Your task to perform on an android device: Clear the cart on amazon.com. Add macbook pro 15 inch to the cart on amazon.com Image 0: 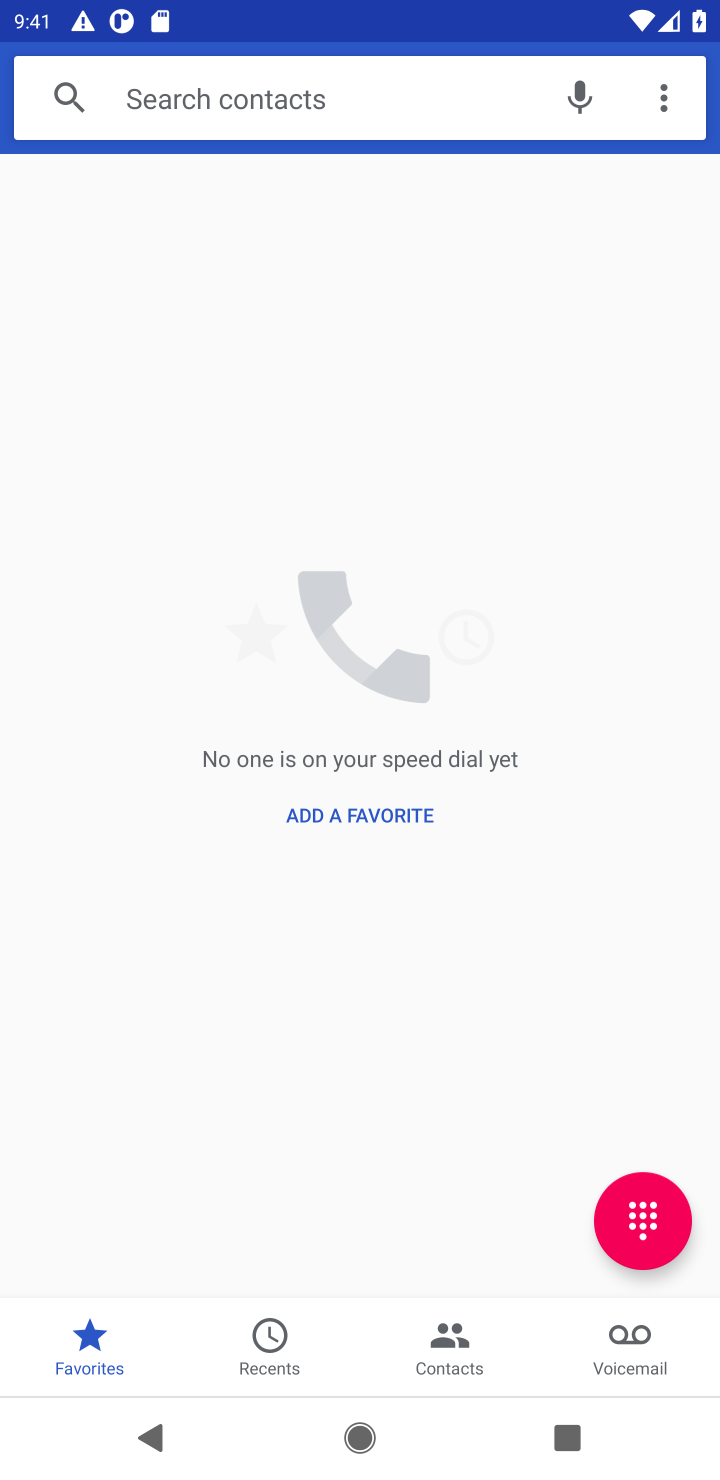
Step 0: press home button
Your task to perform on an android device: Clear the cart on amazon.com. Add macbook pro 15 inch to the cart on amazon.com Image 1: 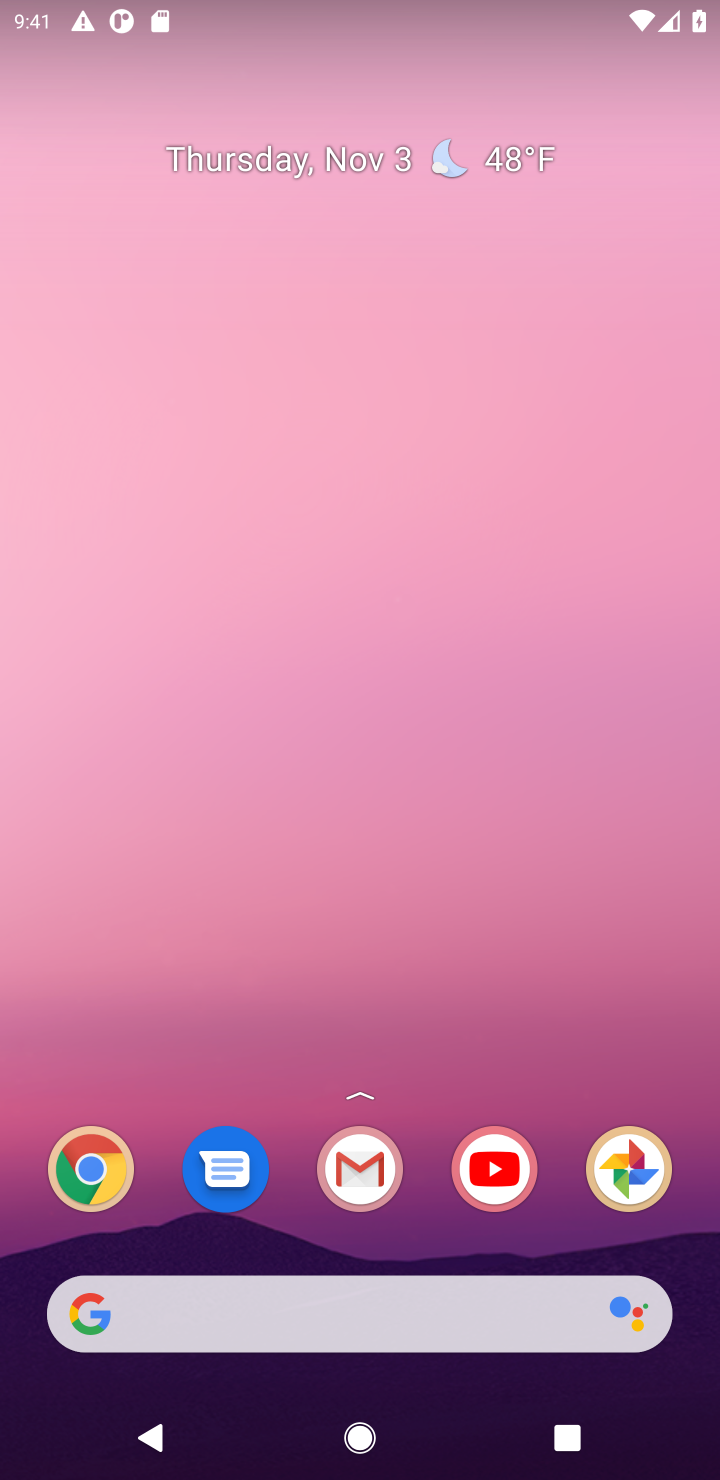
Step 1: drag from (430, 995) to (403, 205)
Your task to perform on an android device: Clear the cart on amazon.com. Add macbook pro 15 inch to the cart on amazon.com Image 2: 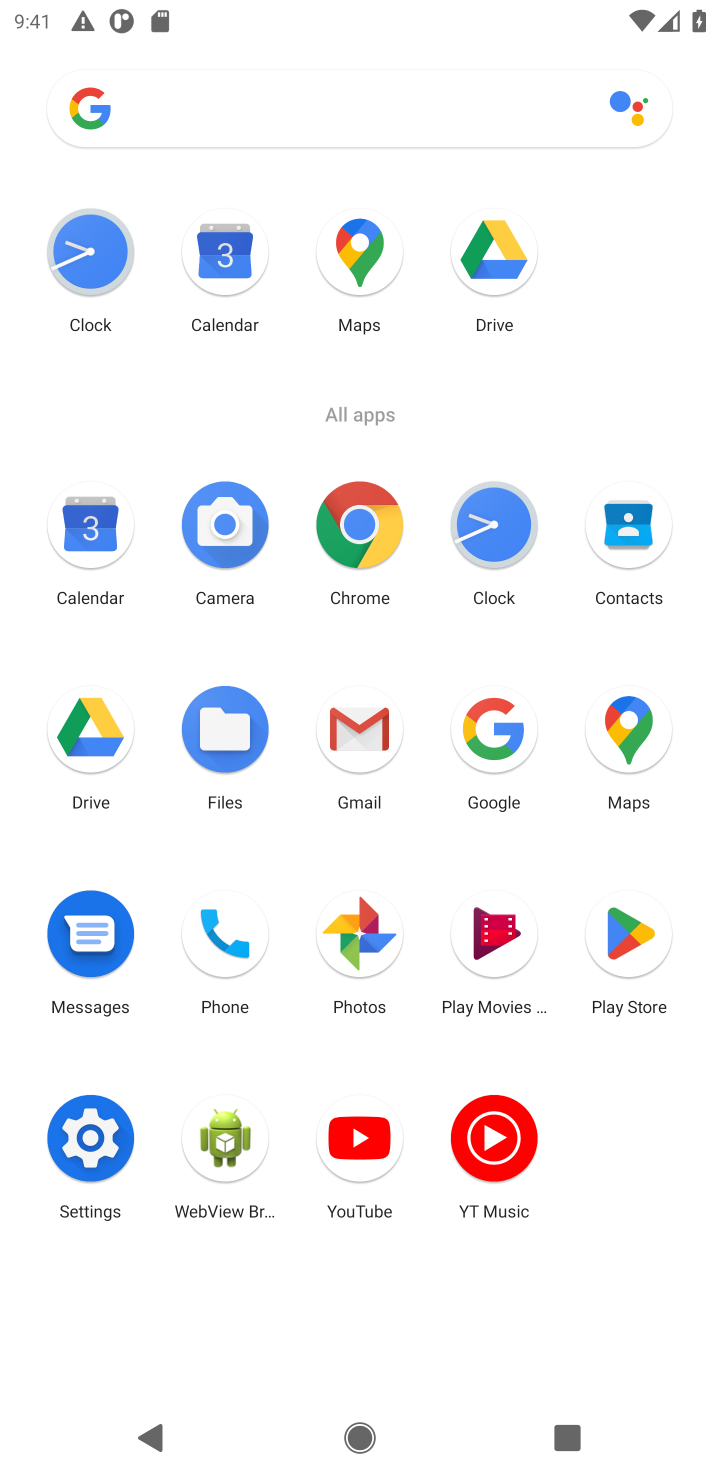
Step 2: click (365, 534)
Your task to perform on an android device: Clear the cart on amazon.com. Add macbook pro 15 inch to the cart on amazon.com Image 3: 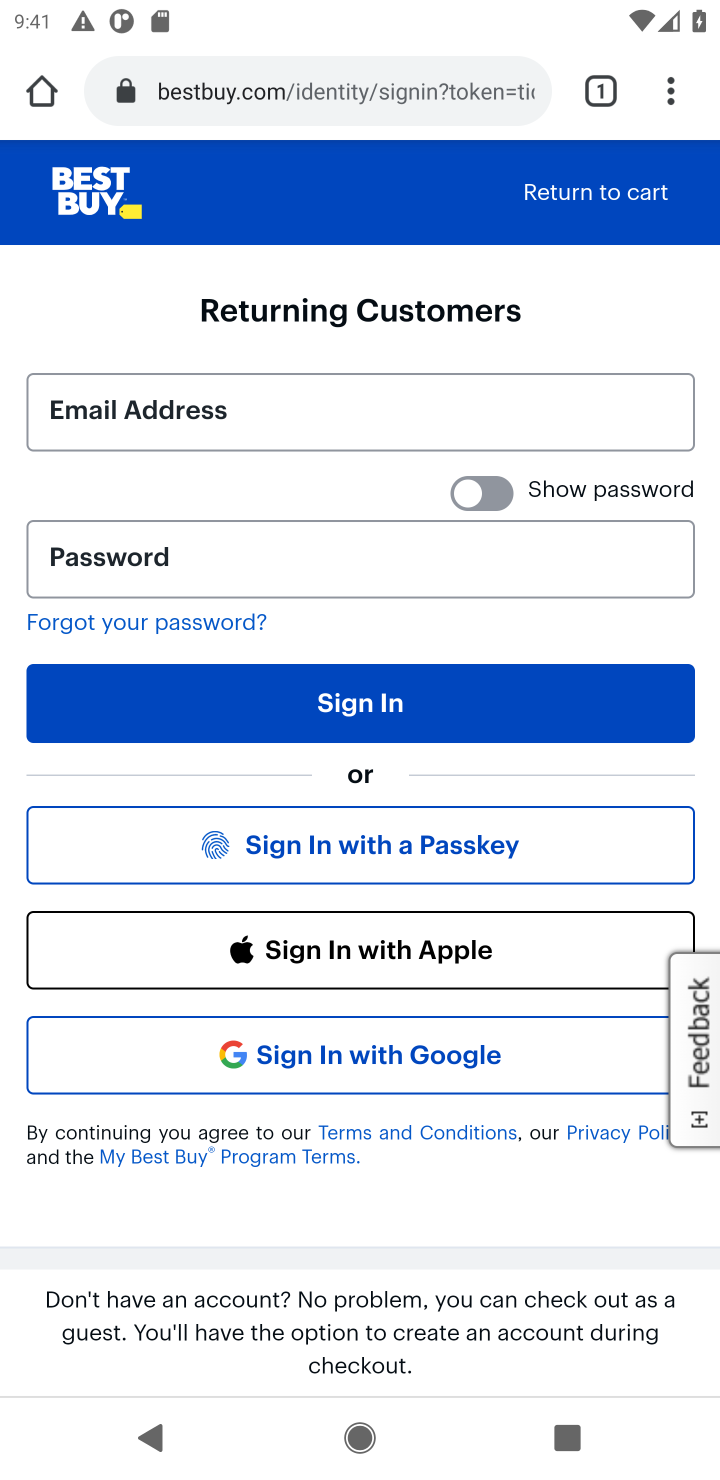
Step 3: click (445, 91)
Your task to perform on an android device: Clear the cart on amazon.com. Add macbook pro 15 inch to the cart on amazon.com Image 4: 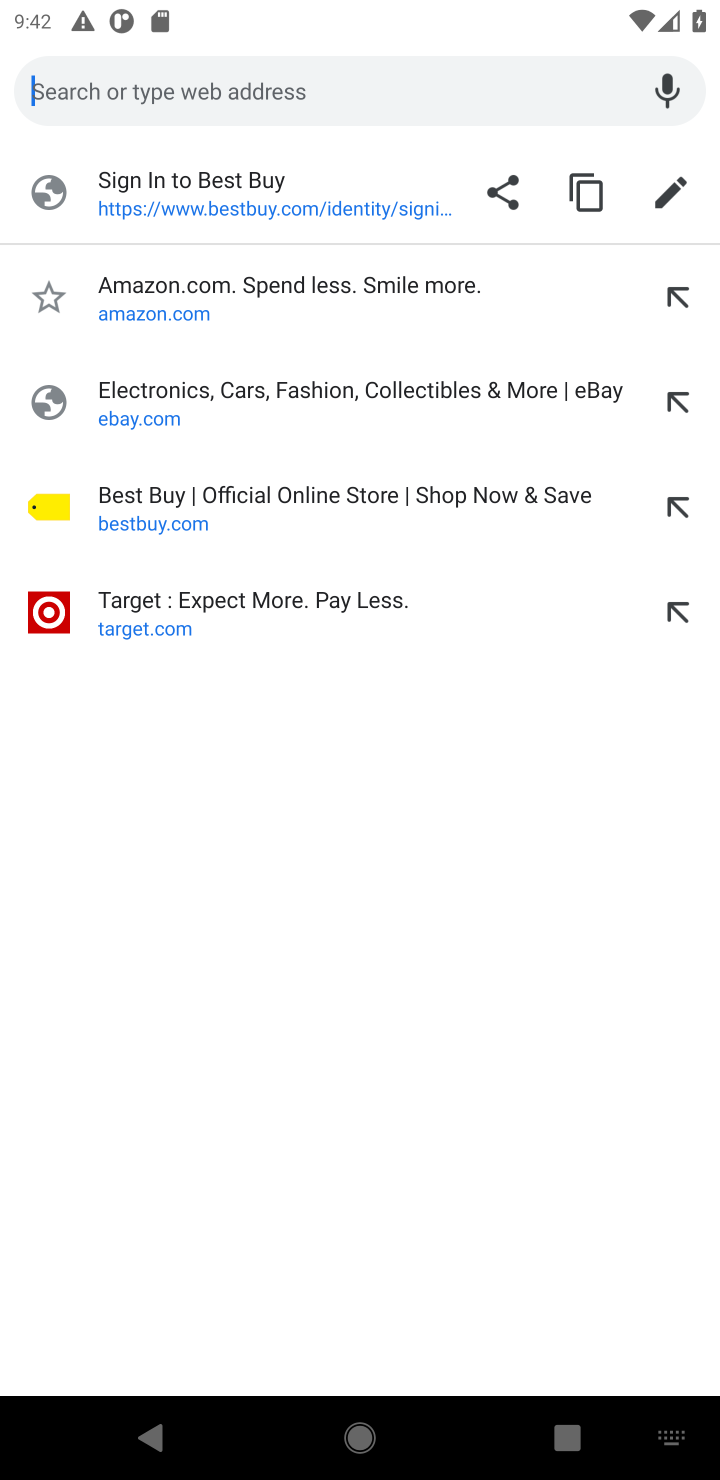
Step 4: type "amazon.com"
Your task to perform on an android device: Clear the cart on amazon.com. Add macbook pro 15 inch to the cart on amazon.com Image 5: 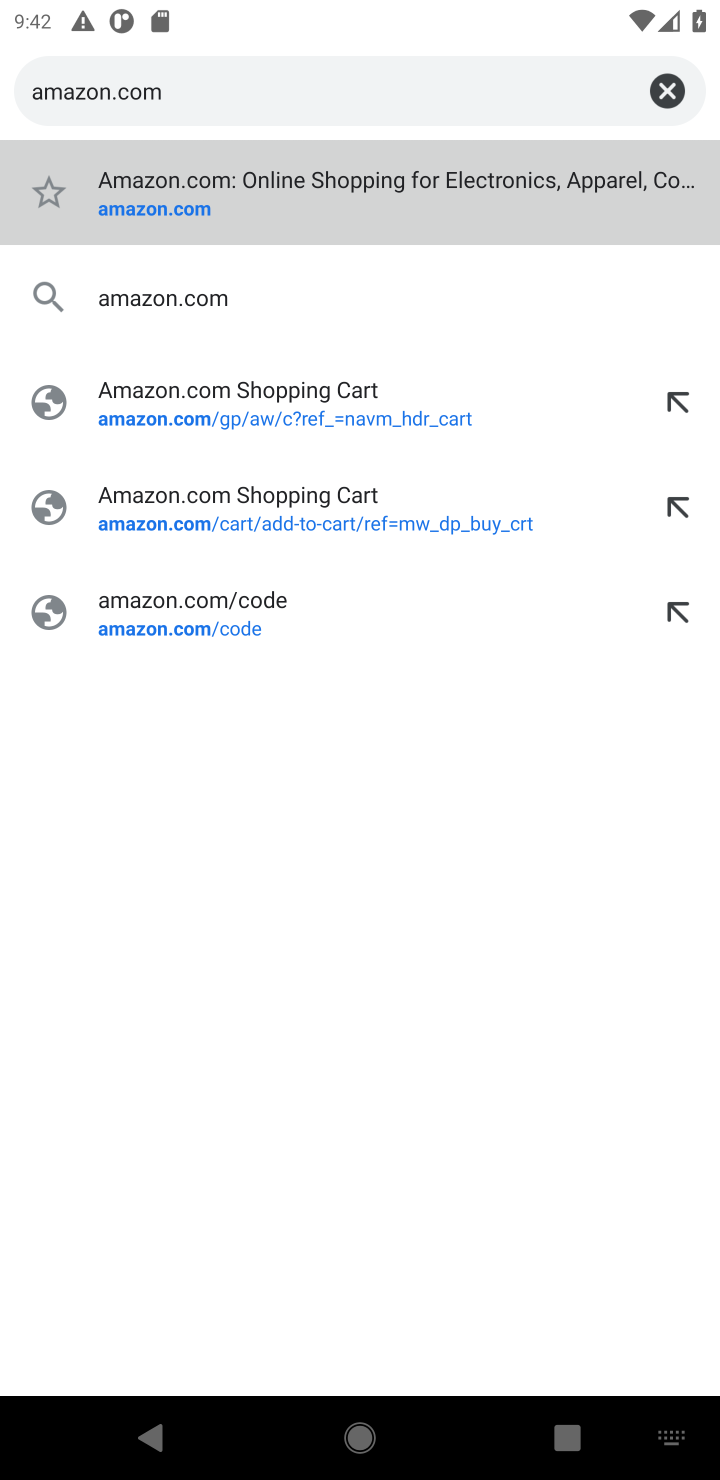
Step 5: press enter
Your task to perform on an android device: Clear the cart on amazon.com. Add macbook pro 15 inch to the cart on amazon.com Image 6: 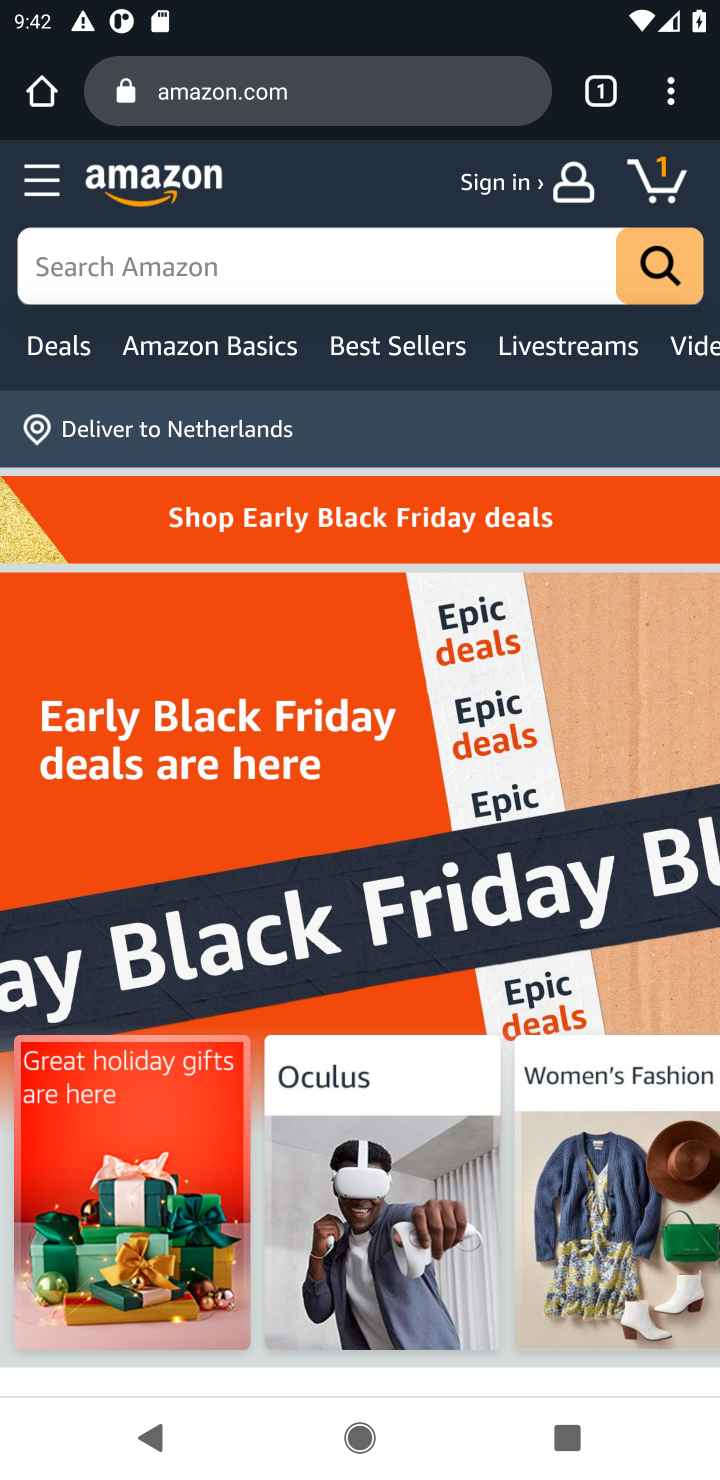
Step 6: click (668, 164)
Your task to perform on an android device: Clear the cart on amazon.com. Add macbook pro 15 inch to the cart on amazon.com Image 7: 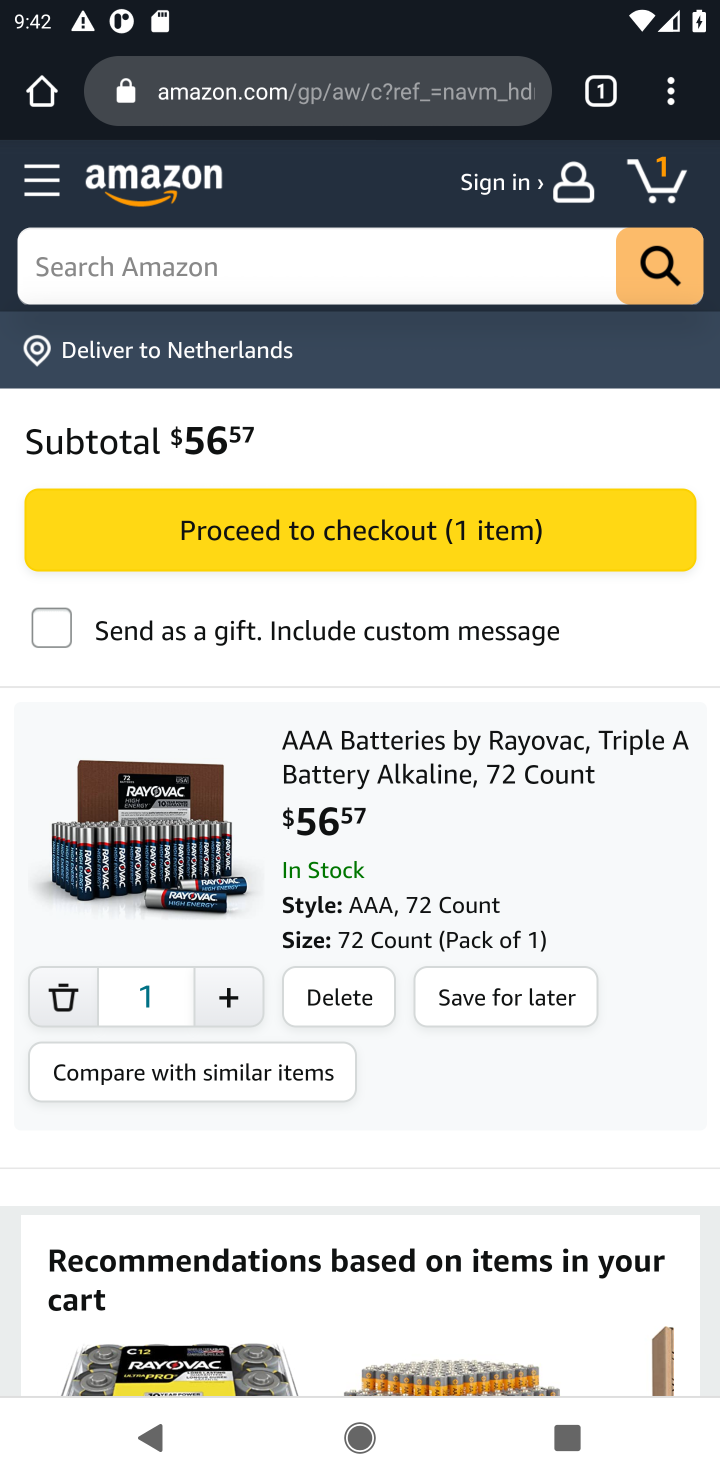
Step 7: click (334, 1003)
Your task to perform on an android device: Clear the cart on amazon.com. Add macbook pro 15 inch to the cart on amazon.com Image 8: 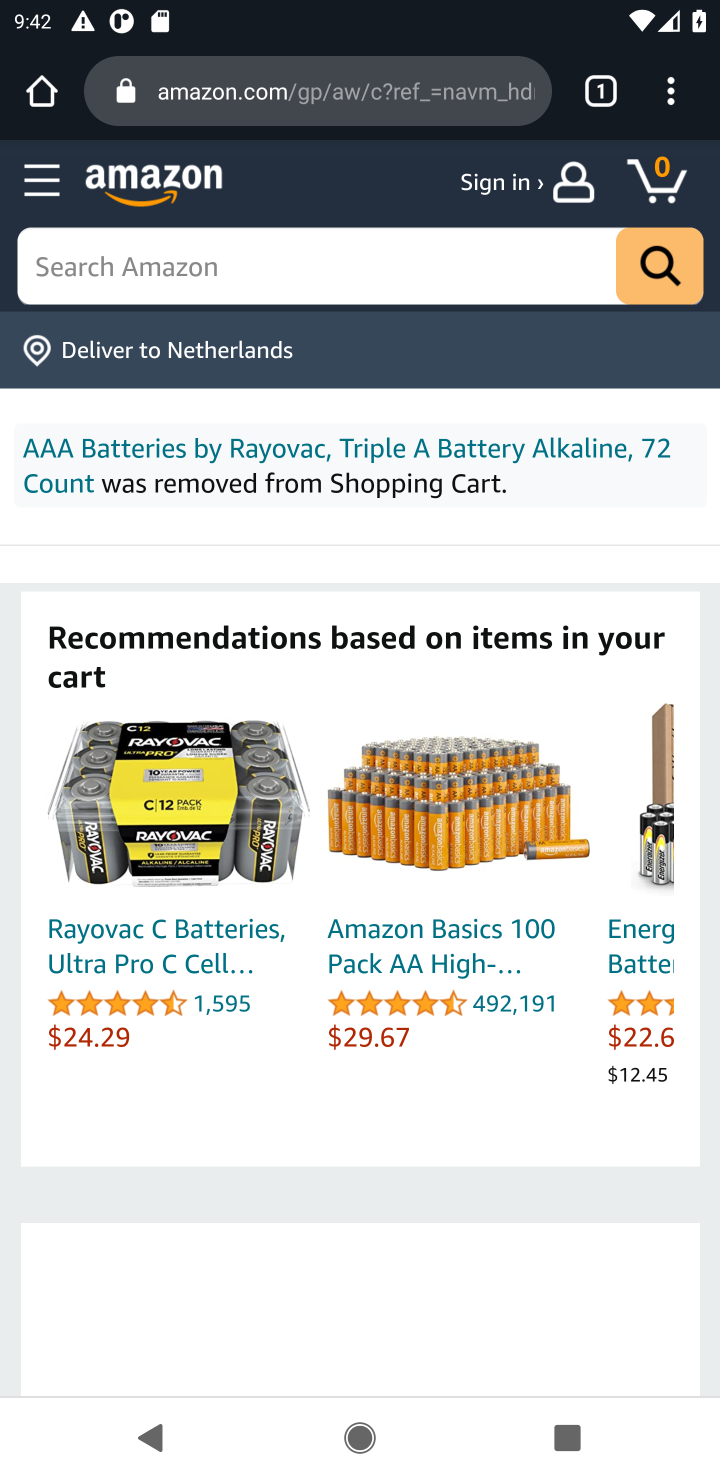
Step 8: click (377, 281)
Your task to perform on an android device: Clear the cart on amazon.com. Add macbook pro 15 inch to the cart on amazon.com Image 9: 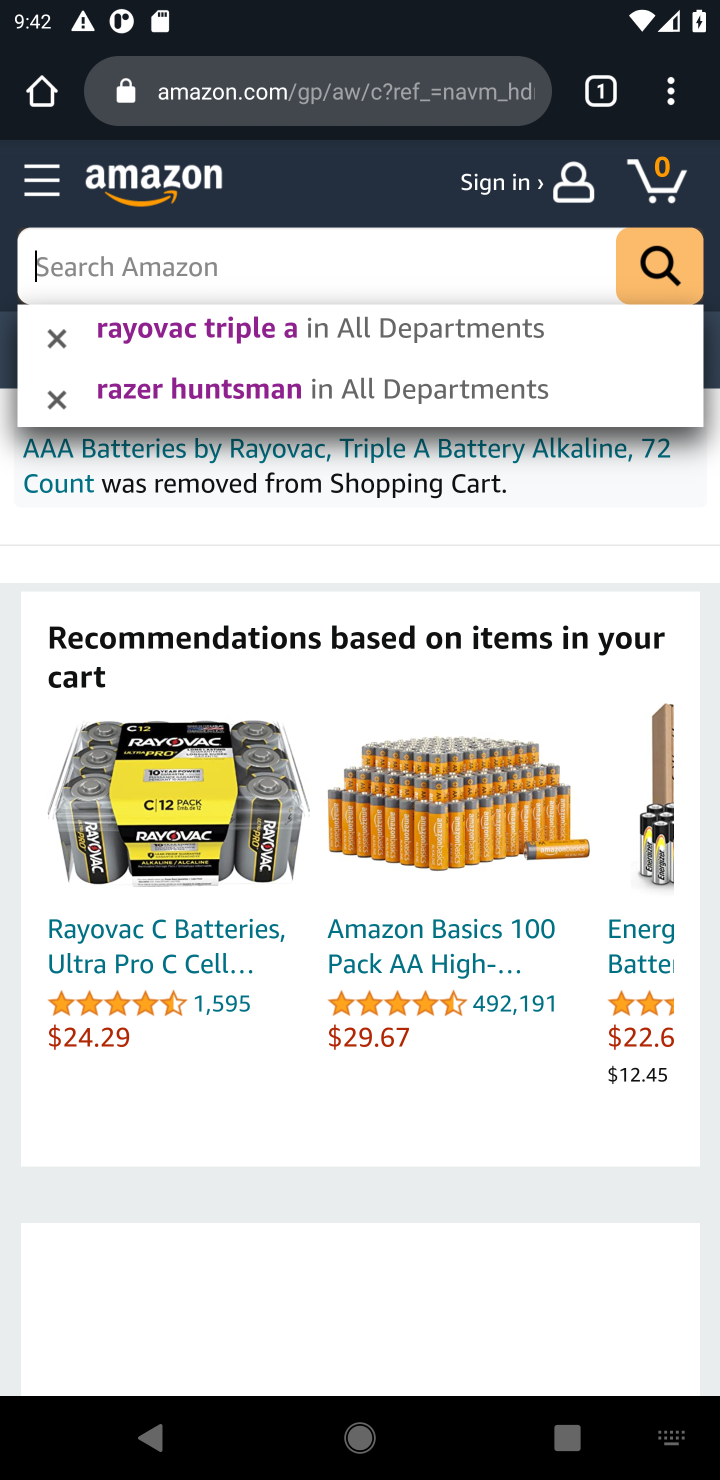
Step 9: type "macbook pro"
Your task to perform on an android device: Clear the cart on amazon.com. Add macbook pro 15 inch to the cart on amazon.com Image 10: 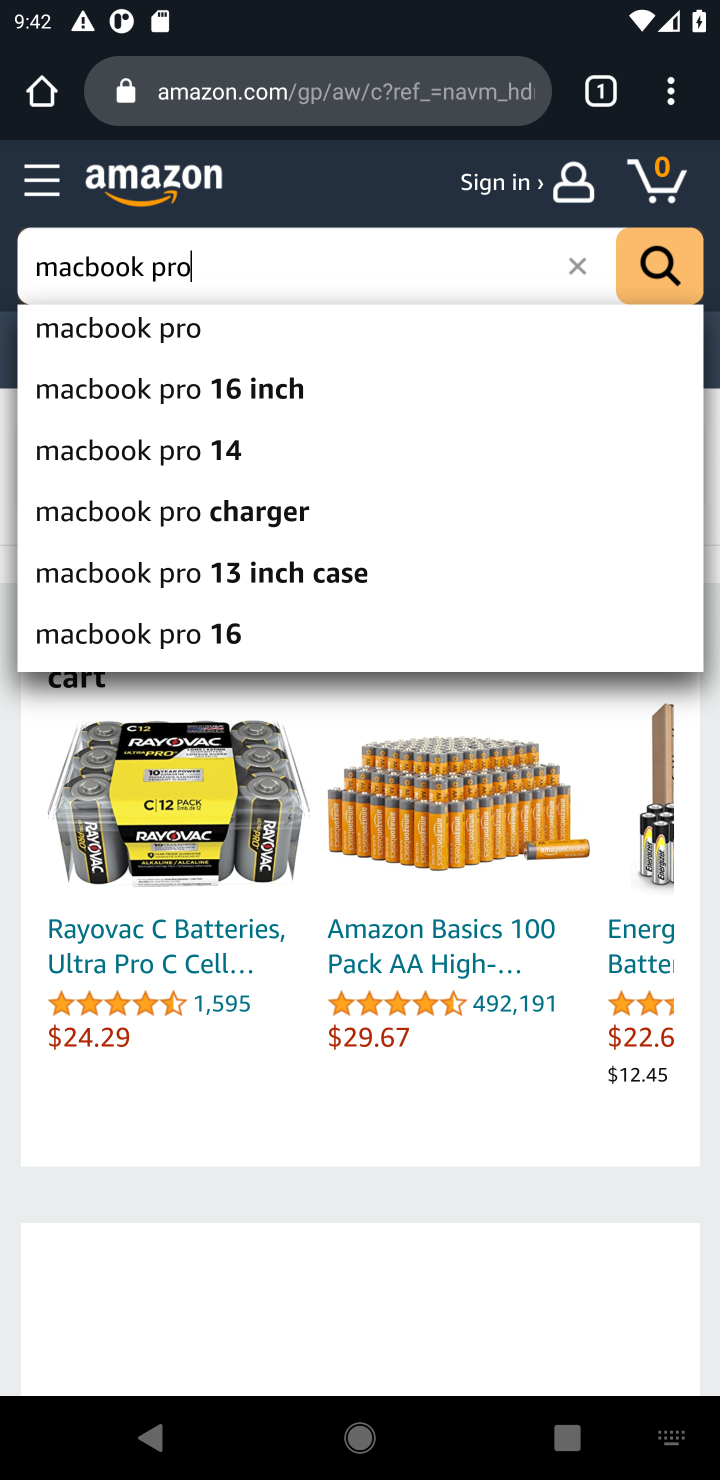
Step 10: press enter
Your task to perform on an android device: Clear the cart on amazon.com. Add macbook pro 15 inch to the cart on amazon.com Image 11: 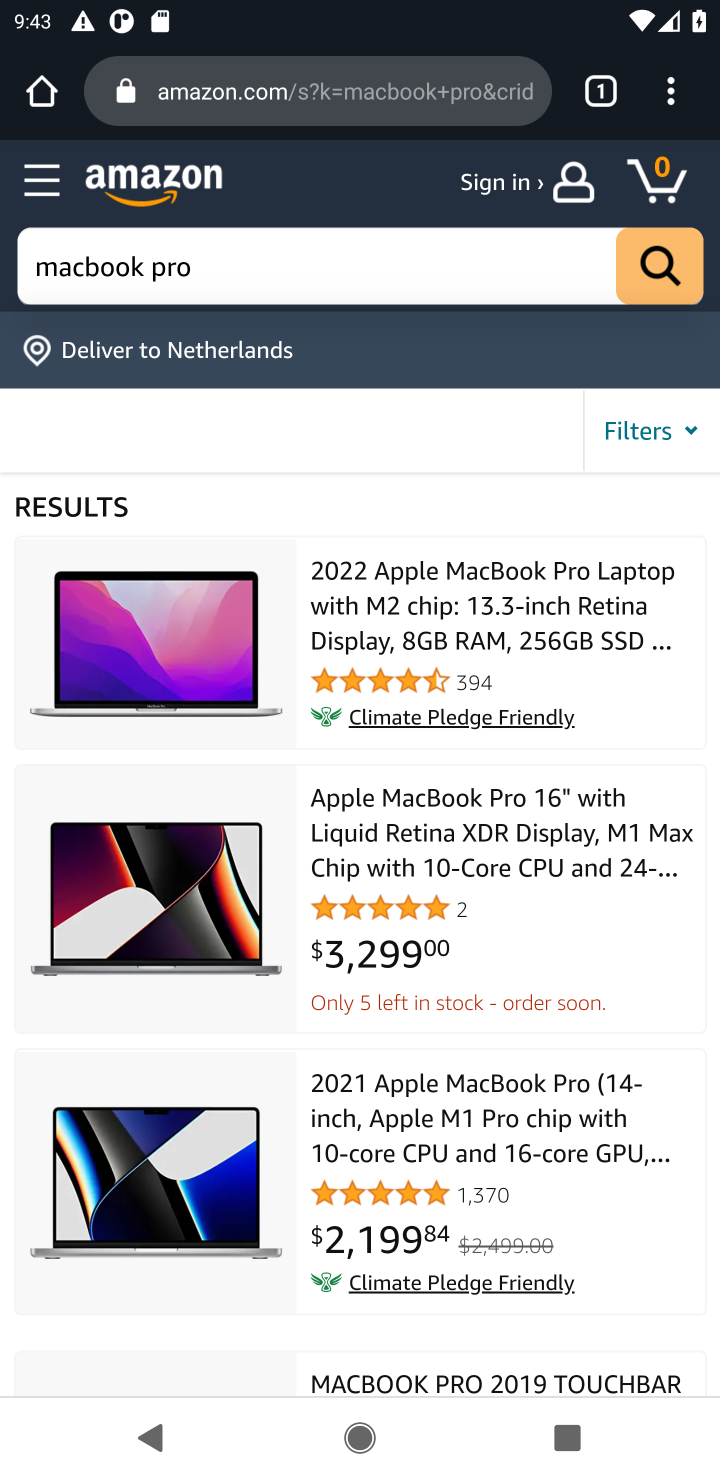
Step 11: click (493, 630)
Your task to perform on an android device: Clear the cart on amazon.com. Add macbook pro 15 inch to the cart on amazon.com Image 12: 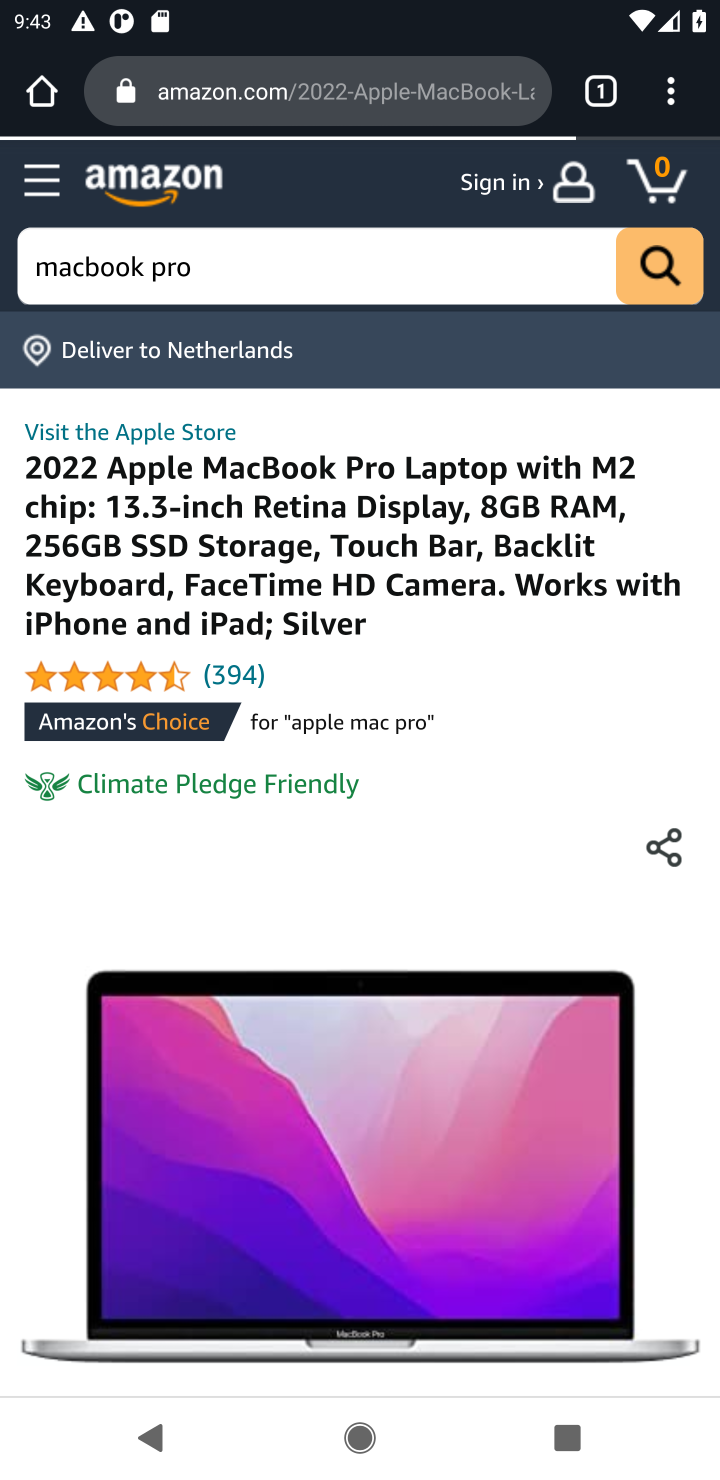
Step 12: task complete